Your task to perform on an android device: change keyboard looks Image 0: 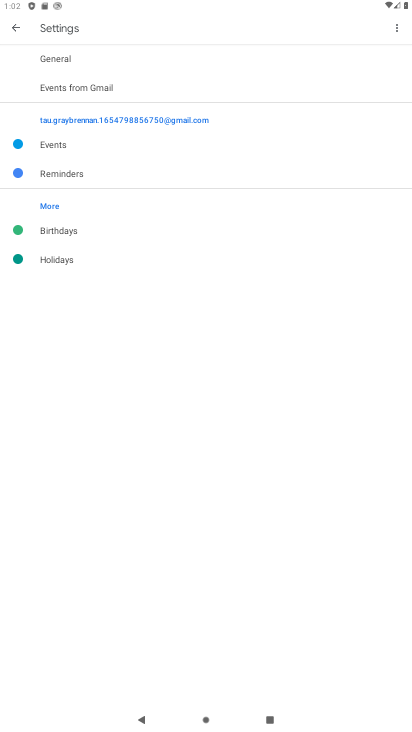
Step 0: press home button
Your task to perform on an android device: change keyboard looks Image 1: 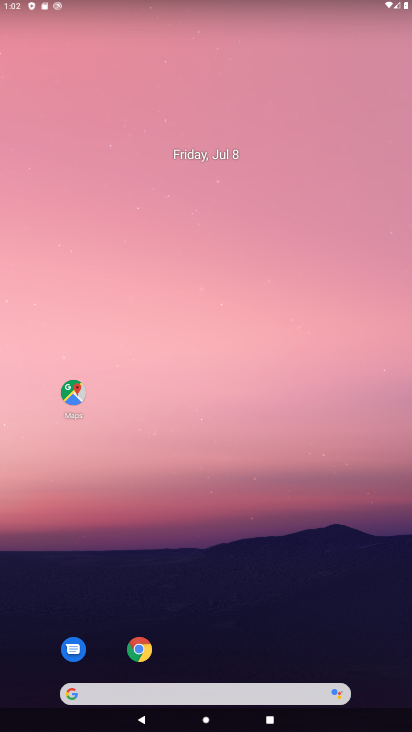
Step 1: drag from (325, 591) to (271, 68)
Your task to perform on an android device: change keyboard looks Image 2: 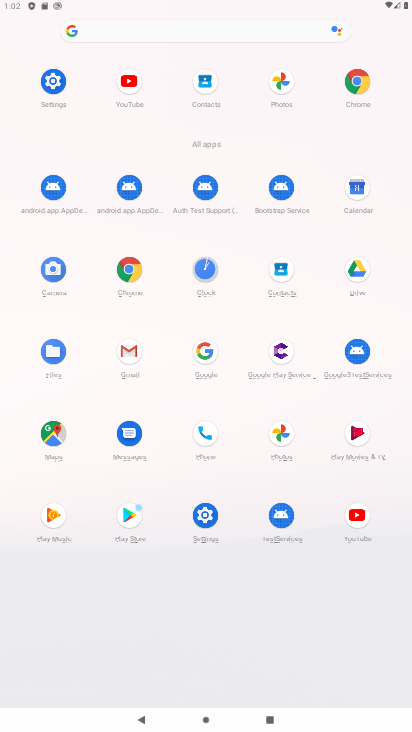
Step 2: click (56, 82)
Your task to perform on an android device: change keyboard looks Image 3: 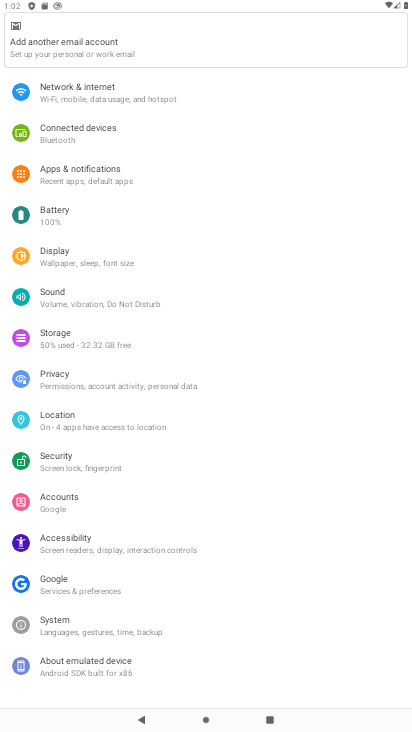
Step 3: click (54, 624)
Your task to perform on an android device: change keyboard looks Image 4: 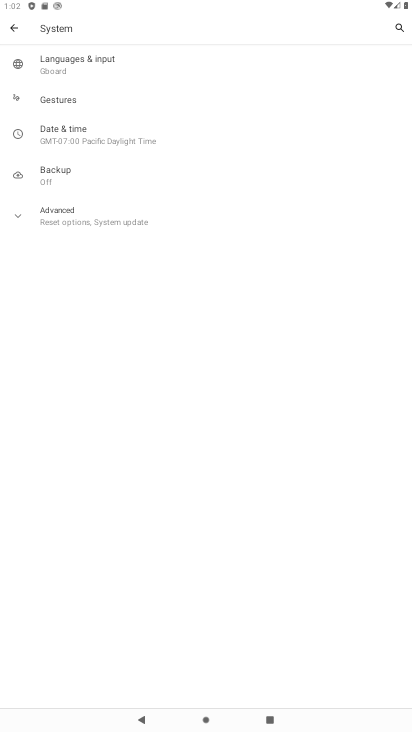
Step 4: click (82, 66)
Your task to perform on an android device: change keyboard looks Image 5: 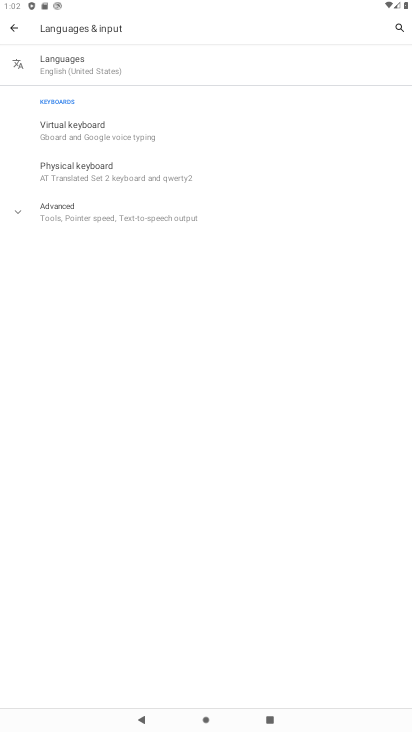
Step 5: click (45, 122)
Your task to perform on an android device: change keyboard looks Image 6: 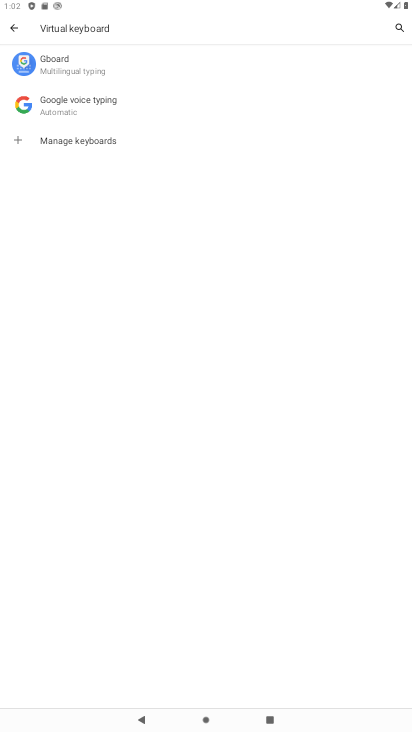
Step 6: click (54, 57)
Your task to perform on an android device: change keyboard looks Image 7: 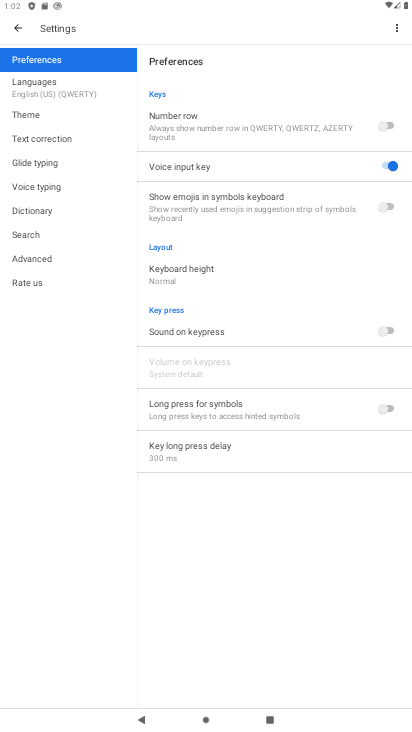
Step 7: click (27, 118)
Your task to perform on an android device: change keyboard looks Image 8: 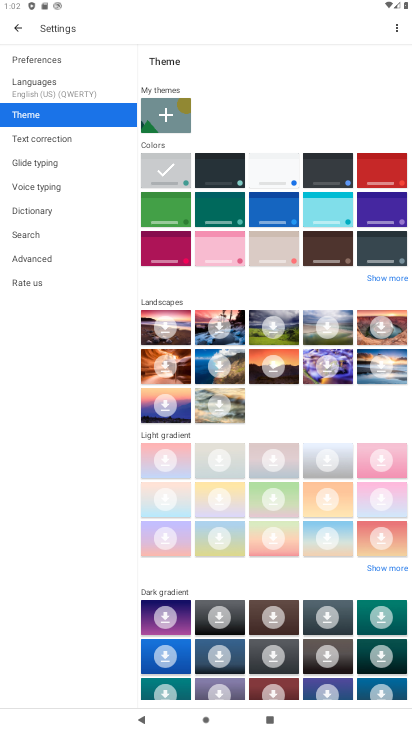
Step 8: click (287, 172)
Your task to perform on an android device: change keyboard looks Image 9: 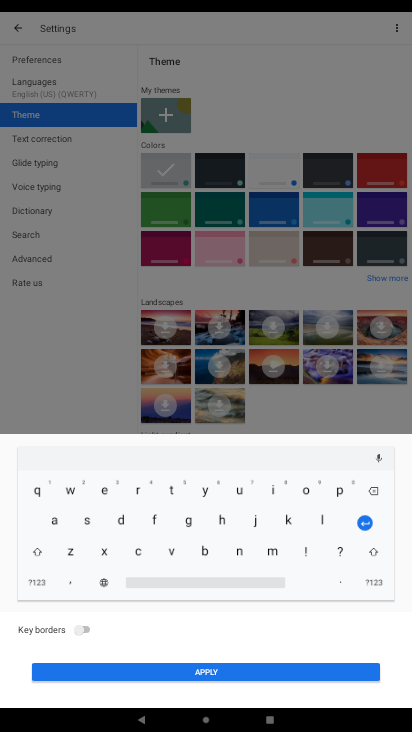
Step 9: click (223, 676)
Your task to perform on an android device: change keyboard looks Image 10: 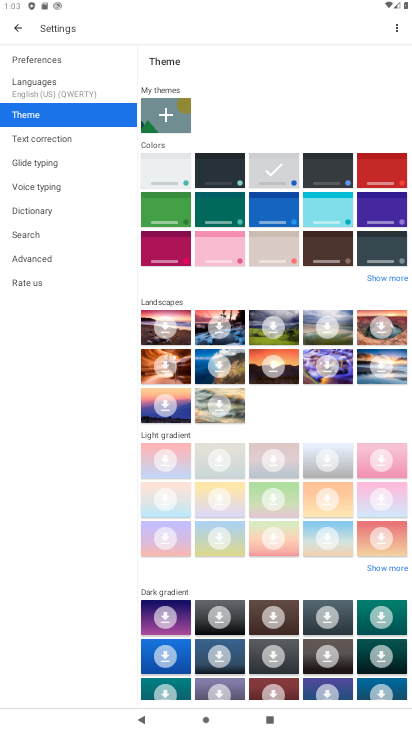
Step 10: task complete